Your task to perform on an android device: uninstall "Reddit" Image 0: 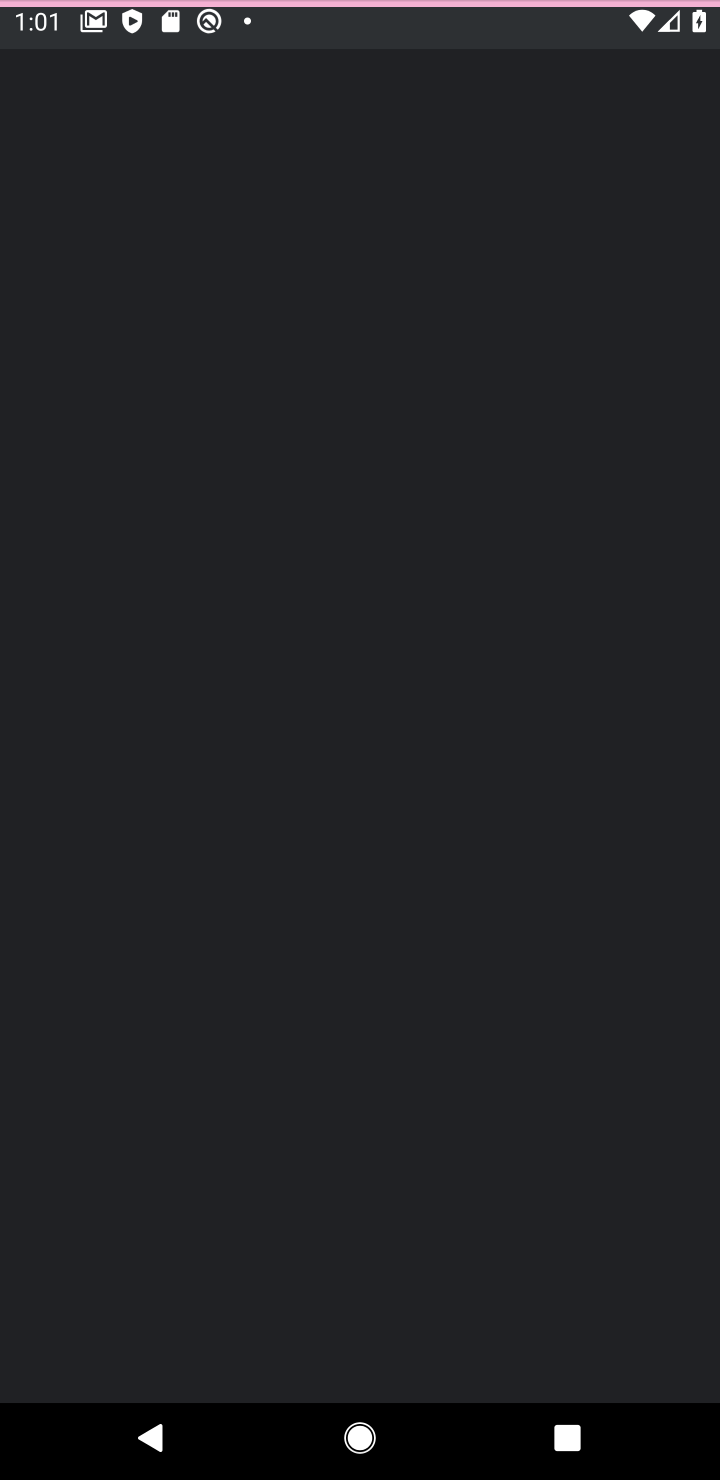
Step 0: press home button
Your task to perform on an android device: uninstall "Reddit" Image 1: 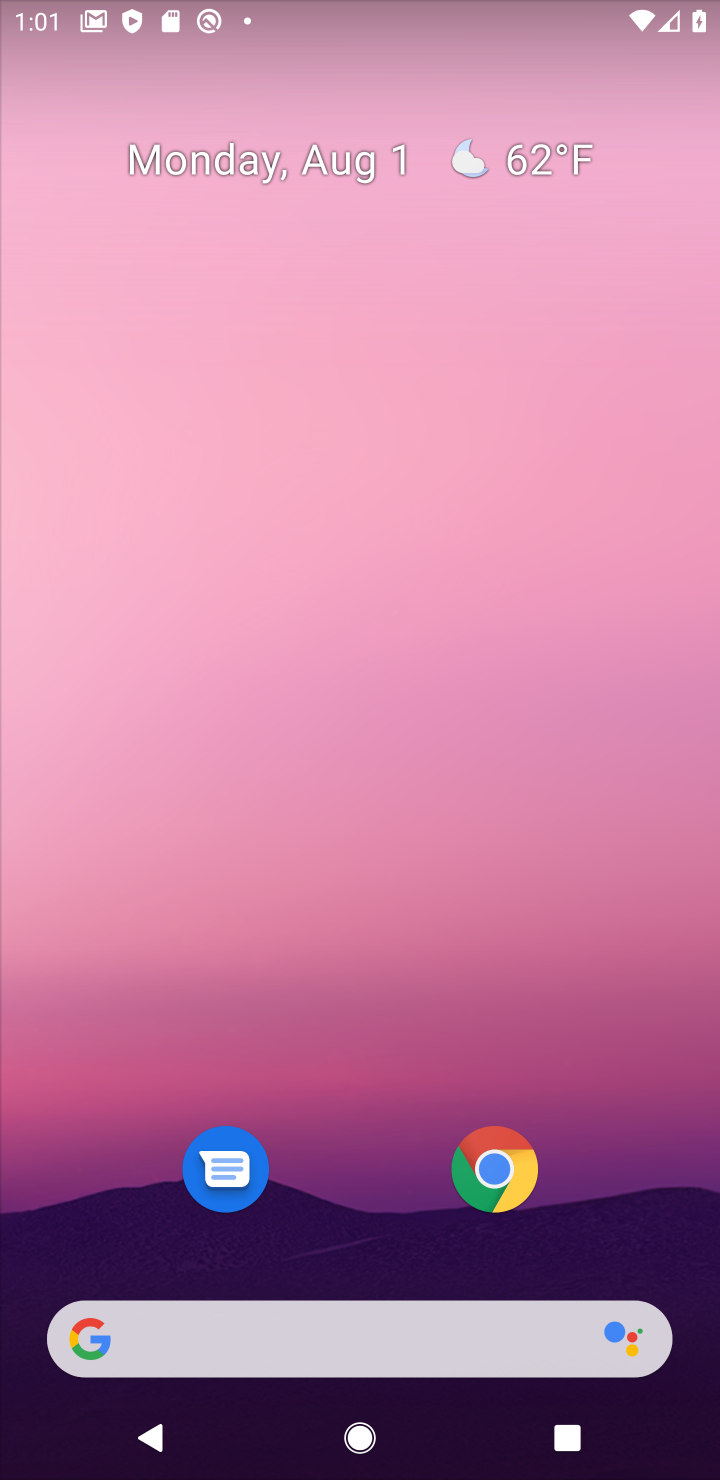
Step 1: drag from (380, 252) to (380, 45)
Your task to perform on an android device: uninstall "Reddit" Image 2: 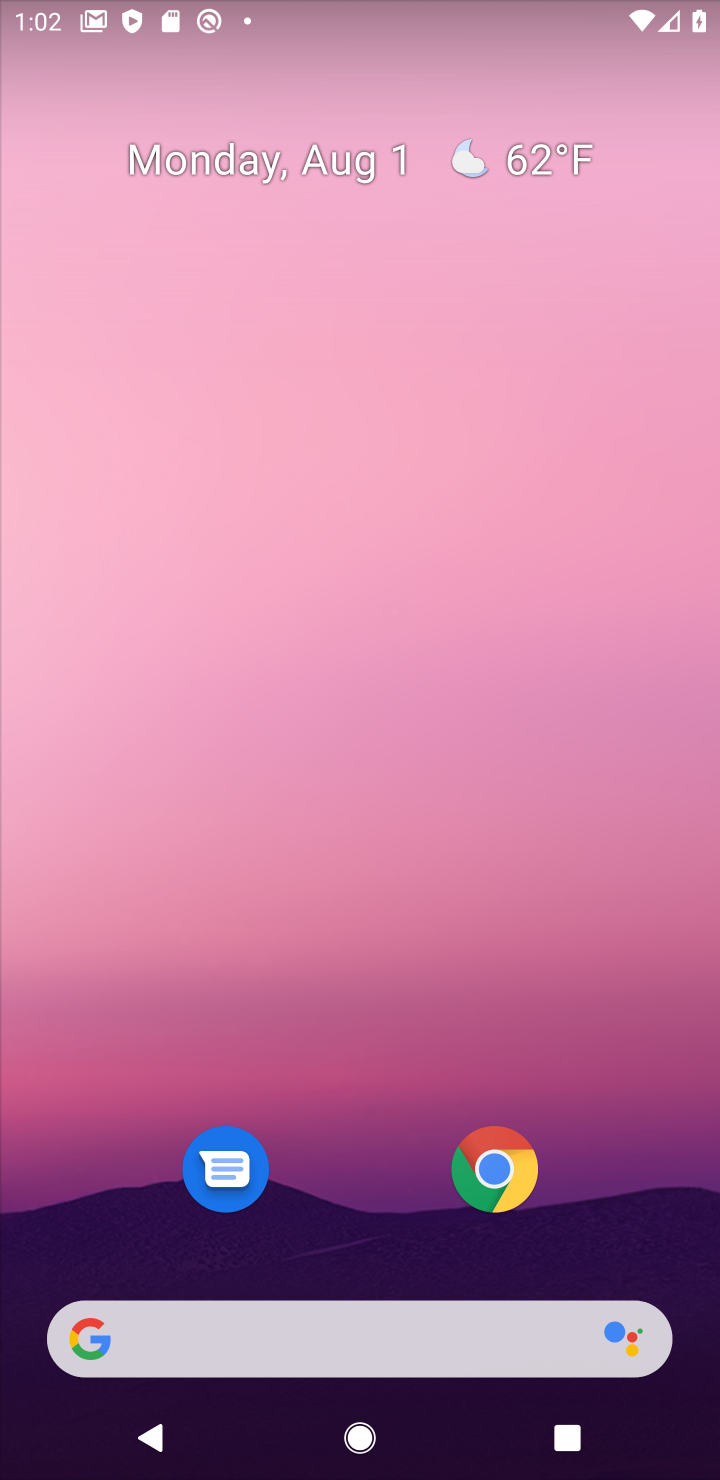
Step 2: drag from (302, 771) to (408, 92)
Your task to perform on an android device: uninstall "Reddit" Image 3: 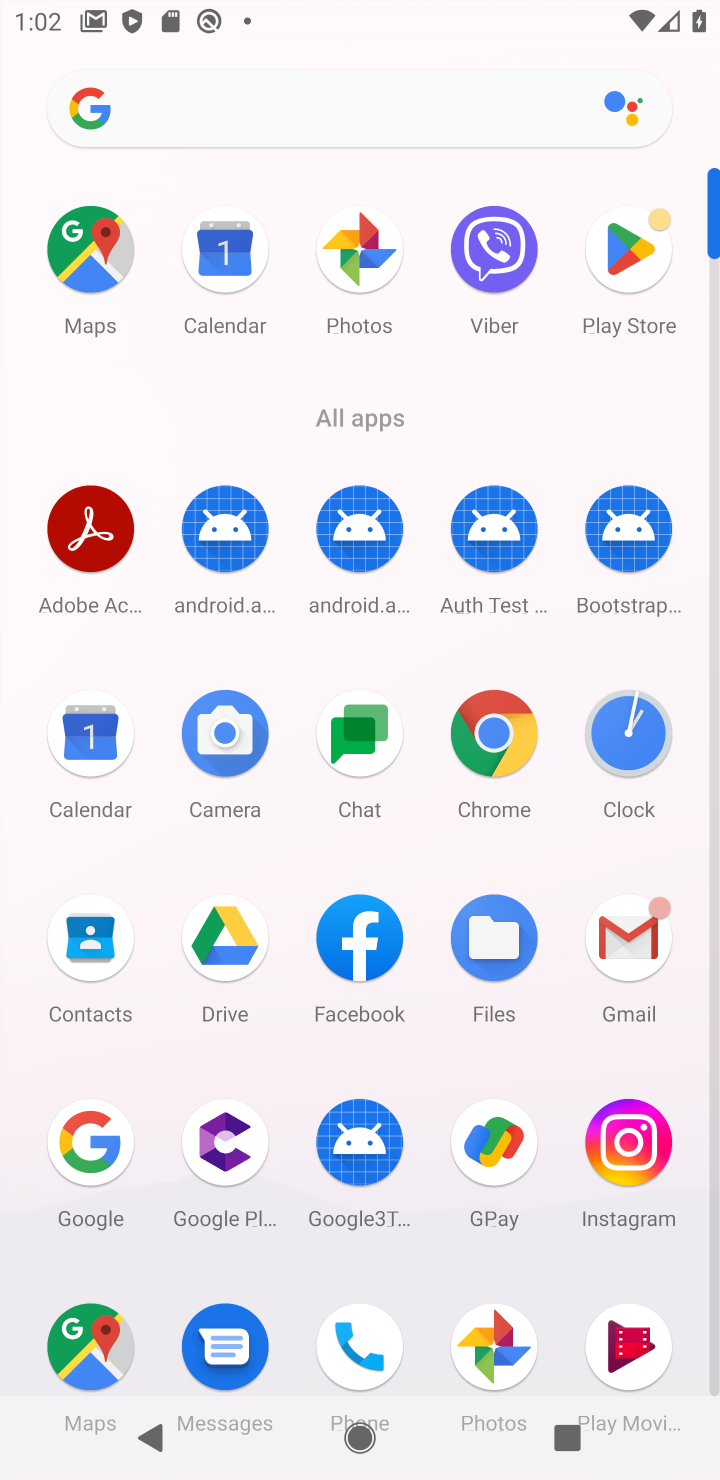
Step 3: click (639, 256)
Your task to perform on an android device: uninstall "Reddit" Image 4: 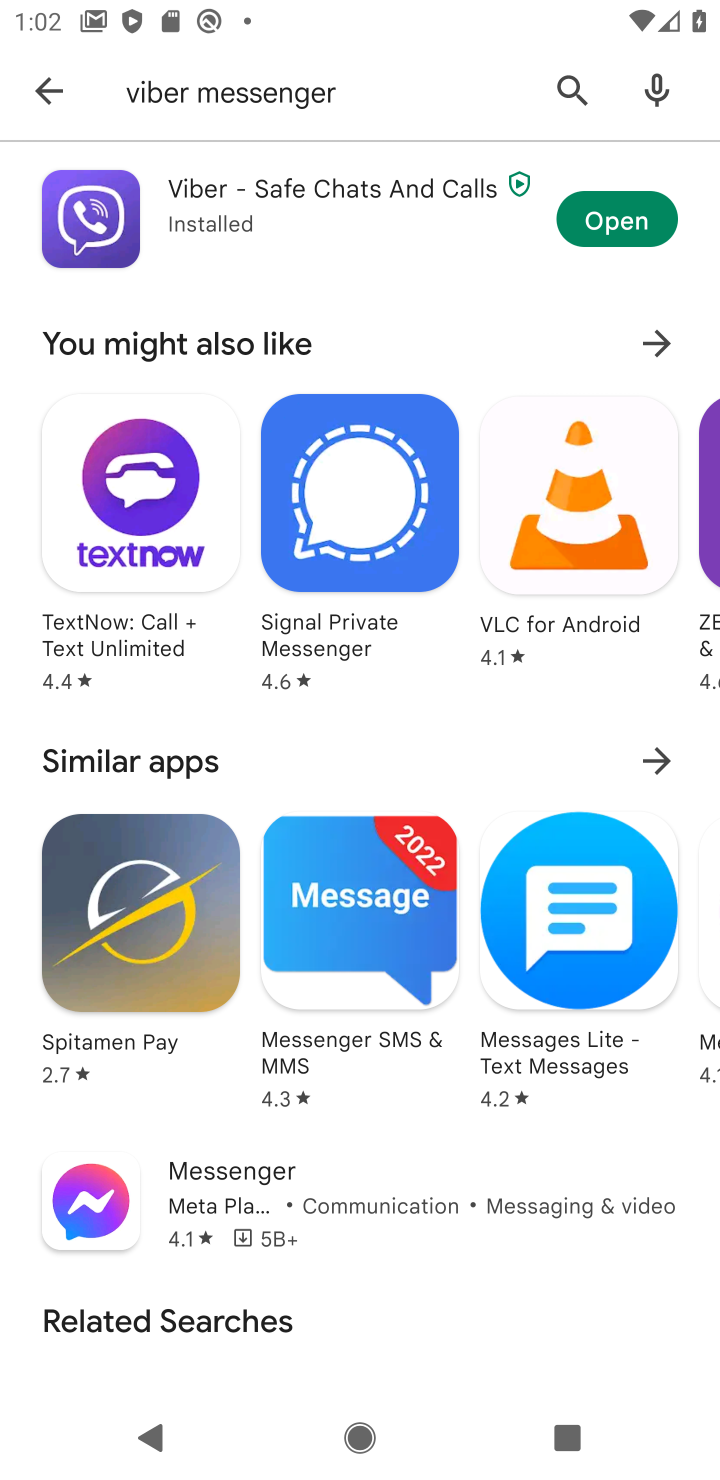
Step 4: click (51, 79)
Your task to perform on an android device: uninstall "Reddit" Image 5: 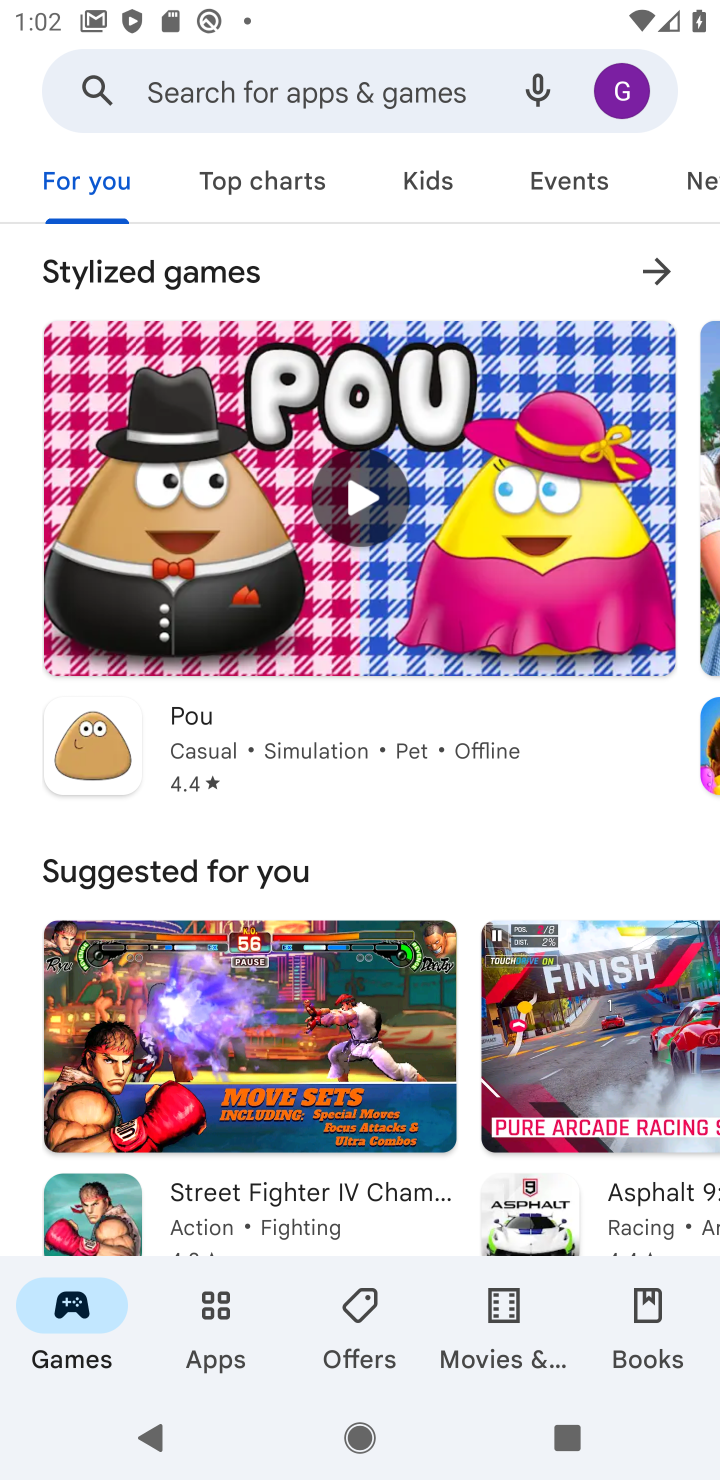
Step 5: click (334, 75)
Your task to perform on an android device: uninstall "Reddit" Image 6: 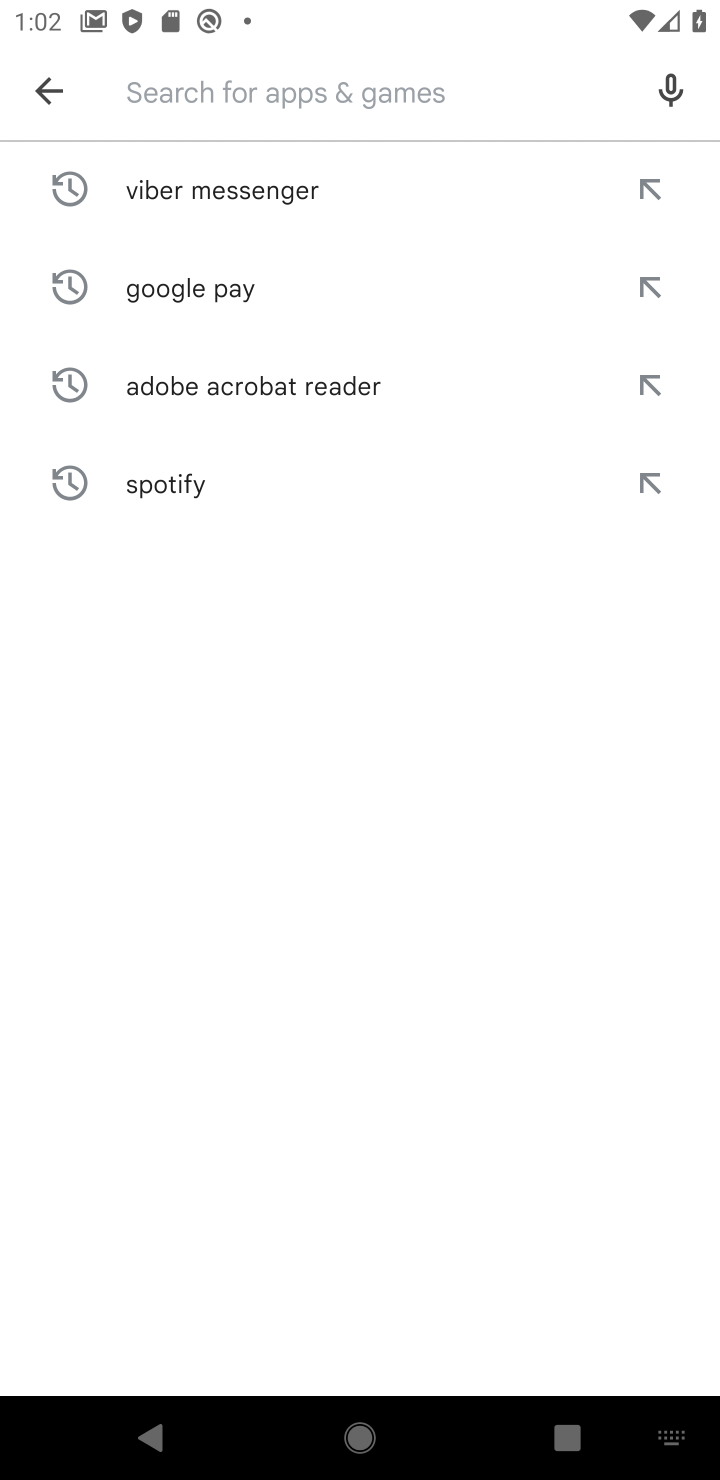
Step 6: type "Reddit"
Your task to perform on an android device: uninstall "Reddit" Image 7: 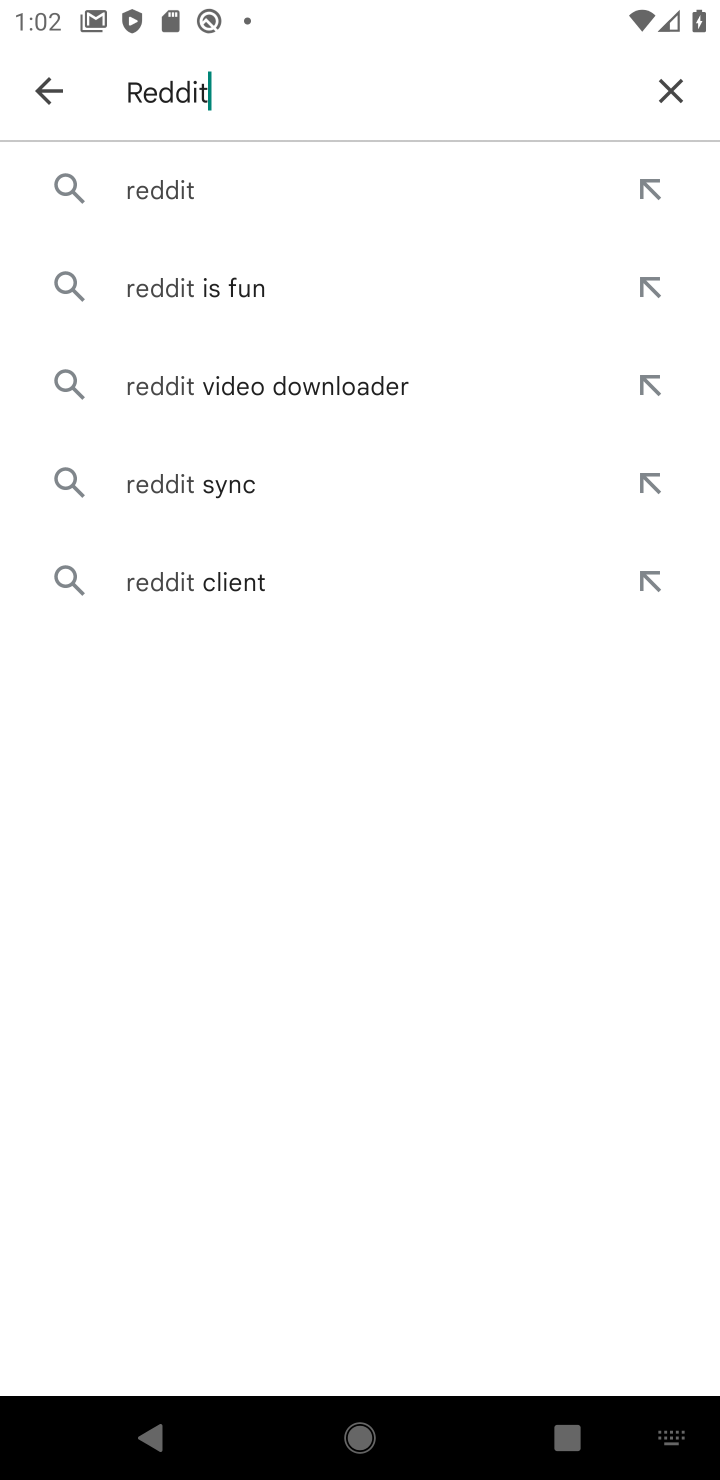
Step 7: click (171, 187)
Your task to perform on an android device: uninstall "Reddit" Image 8: 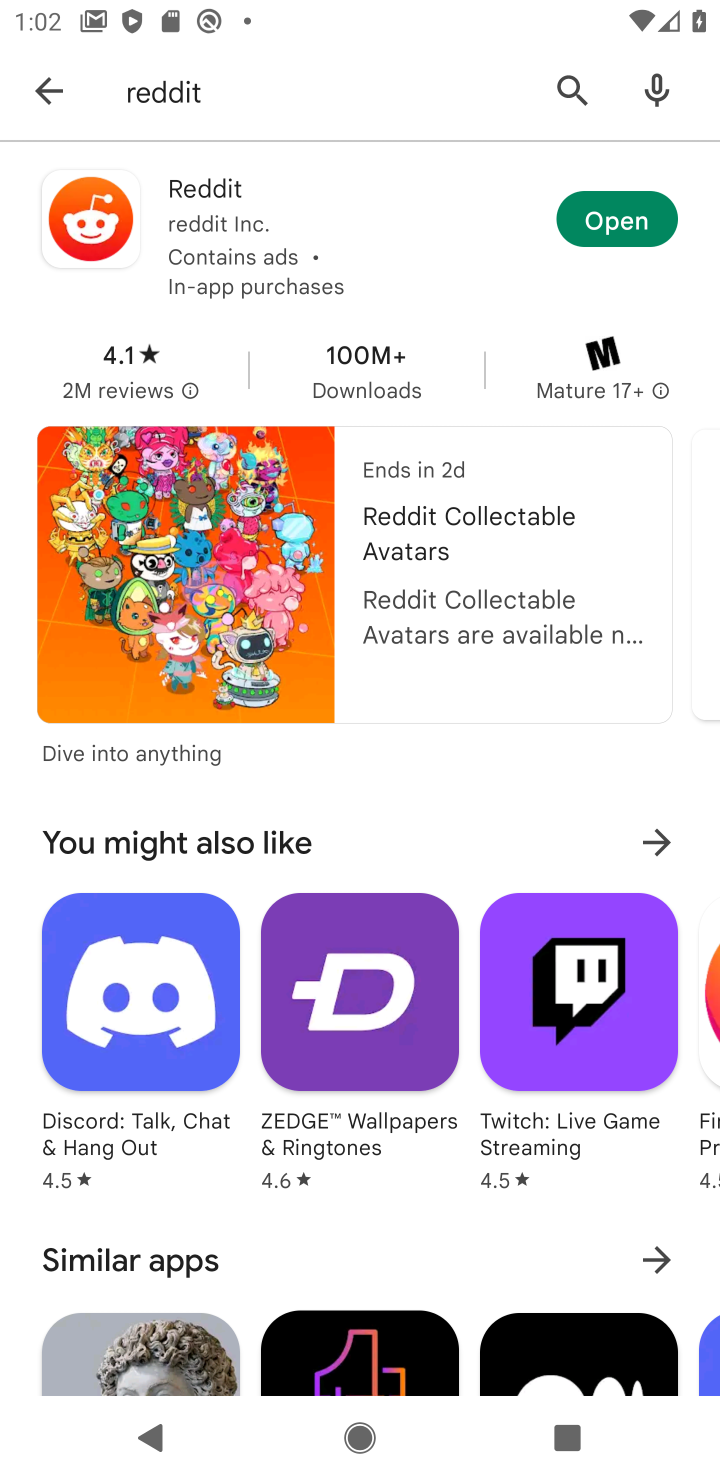
Step 8: click (162, 235)
Your task to perform on an android device: uninstall "Reddit" Image 9: 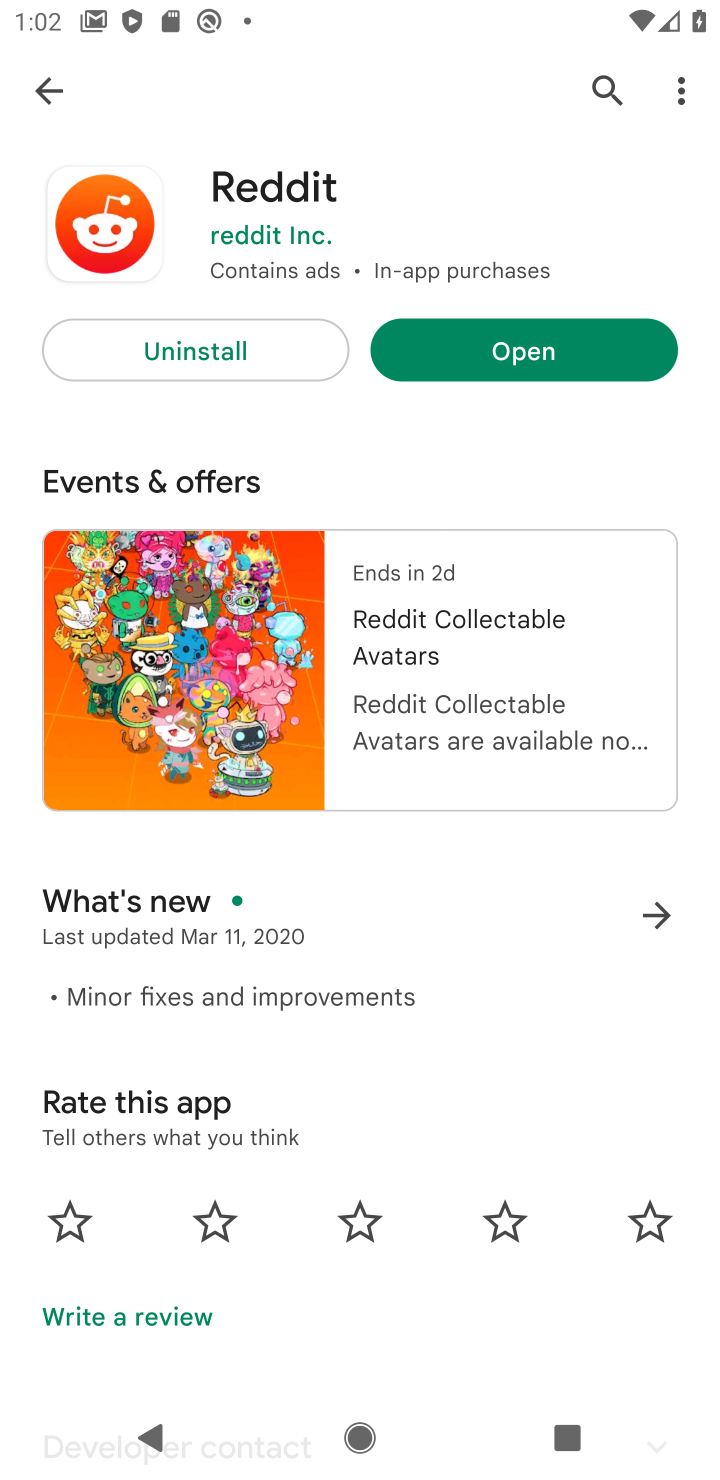
Step 9: click (157, 345)
Your task to perform on an android device: uninstall "Reddit" Image 10: 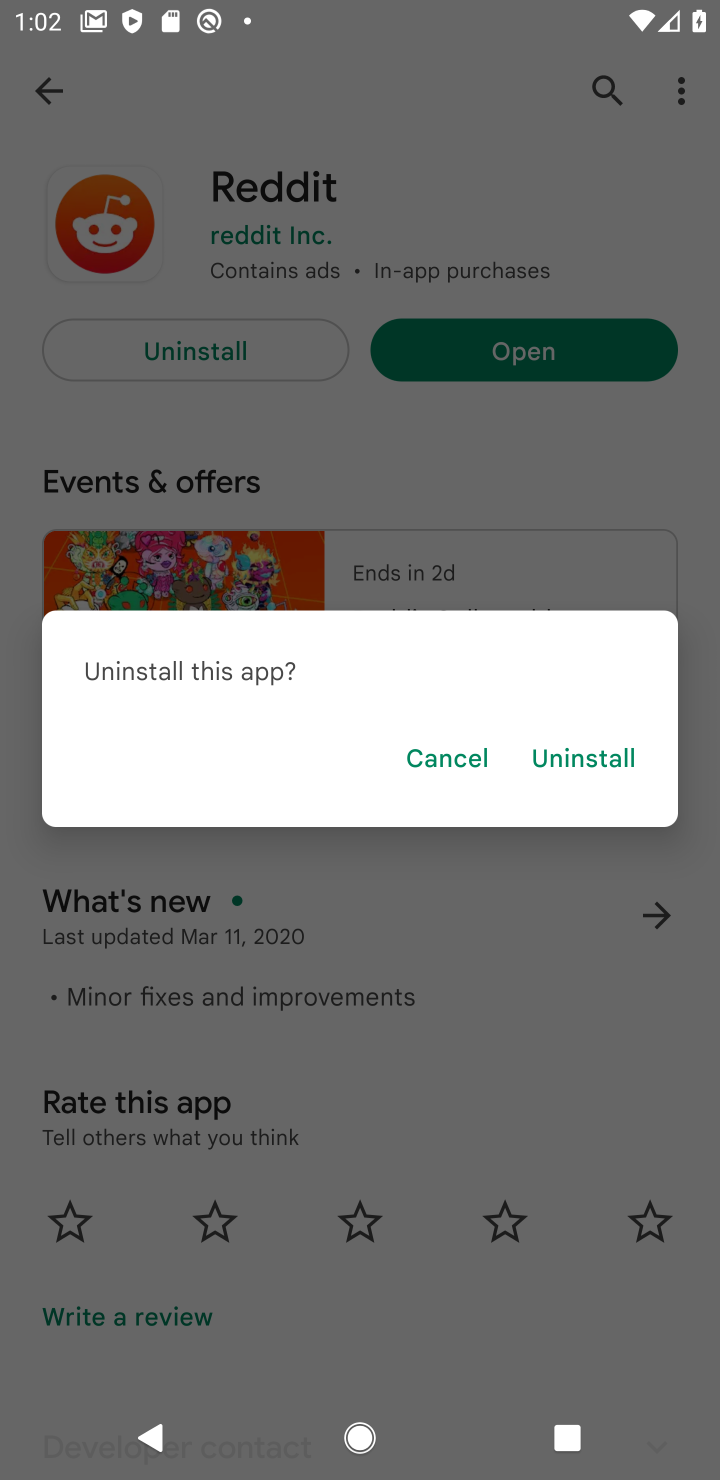
Step 10: click (562, 760)
Your task to perform on an android device: uninstall "Reddit" Image 11: 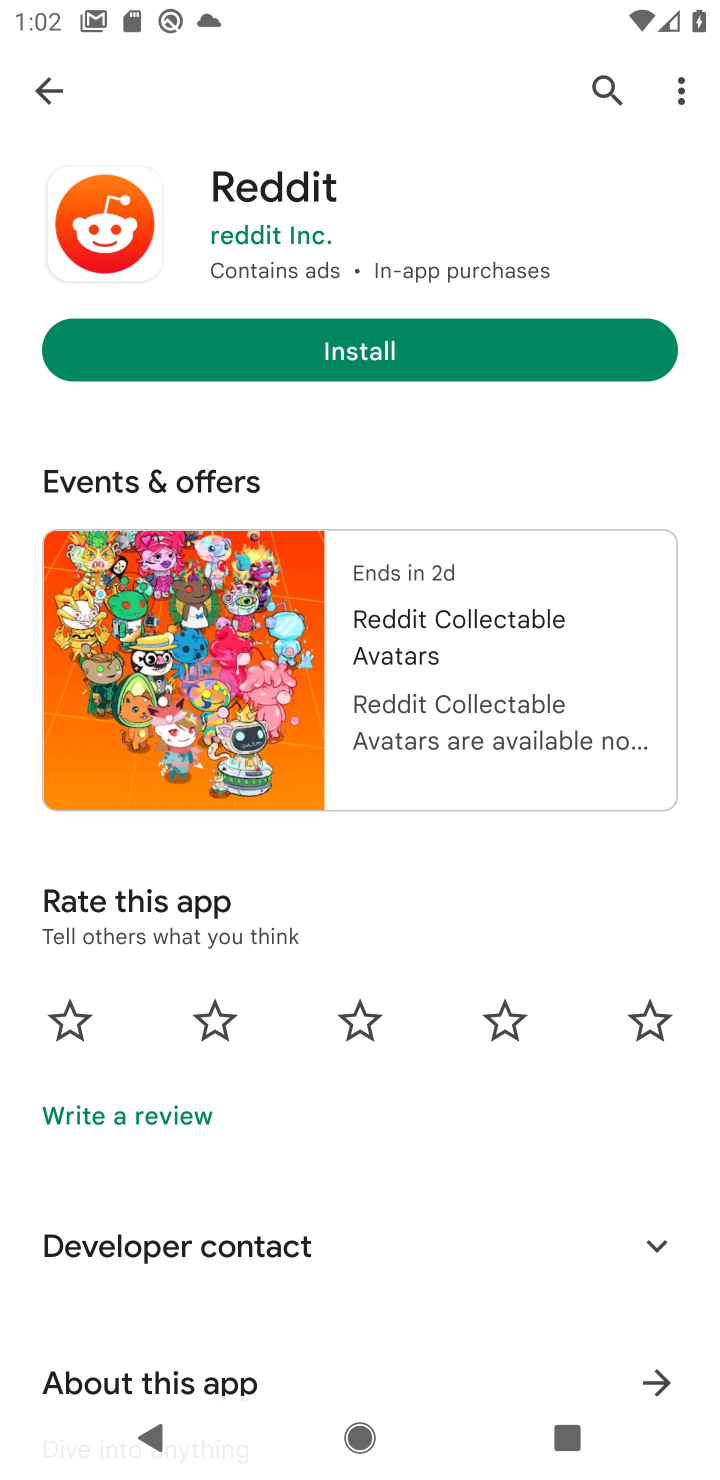
Step 11: task complete